Your task to perform on an android device: set the stopwatch Image 0: 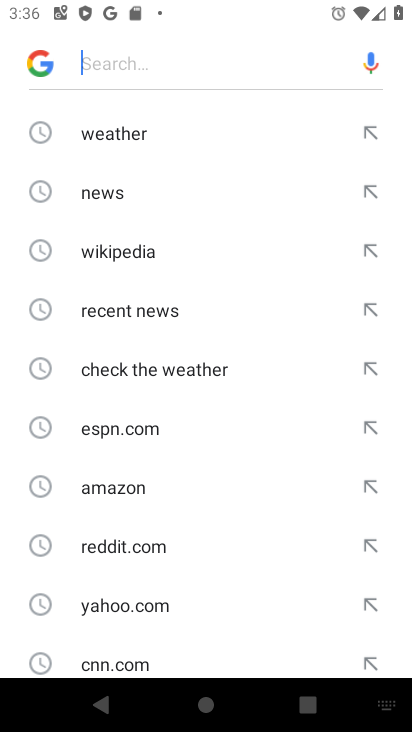
Step 0: press home button
Your task to perform on an android device: set the stopwatch Image 1: 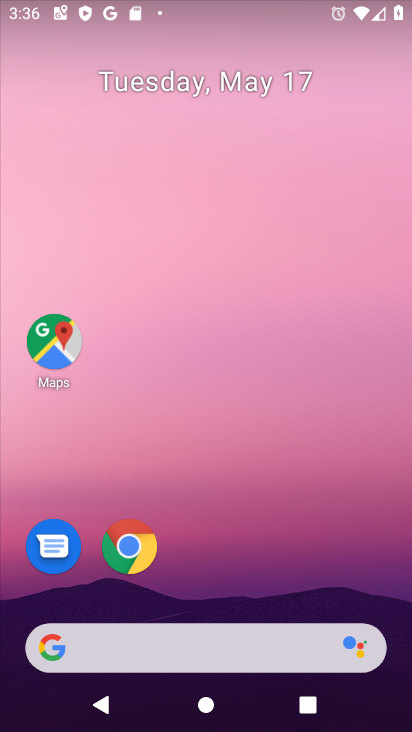
Step 1: drag from (395, 634) to (353, 140)
Your task to perform on an android device: set the stopwatch Image 2: 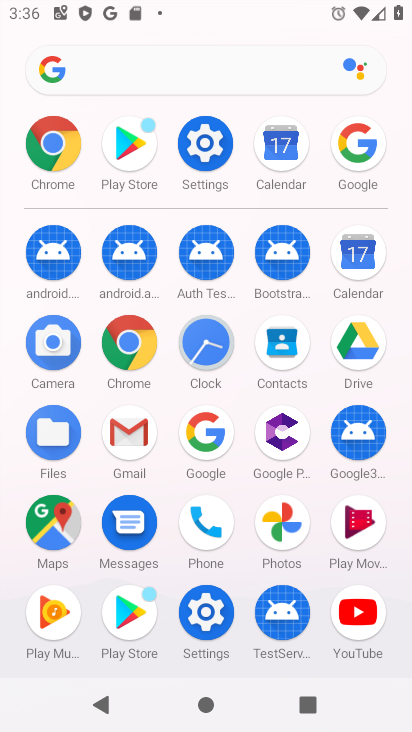
Step 2: click (199, 343)
Your task to perform on an android device: set the stopwatch Image 3: 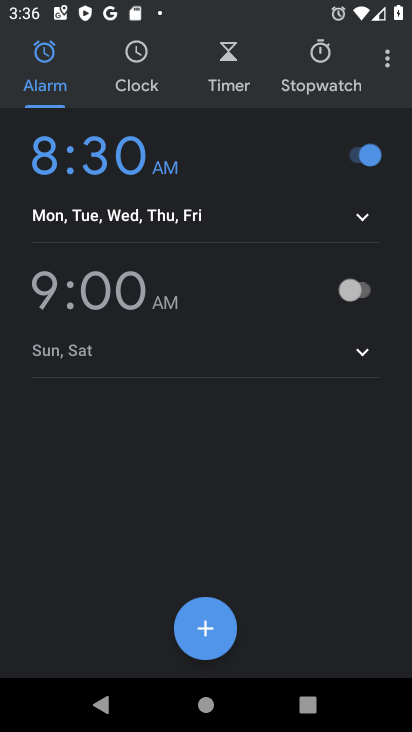
Step 3: click (327, 88)
Your task to perform on an android device: set the stopwatch Image 4: 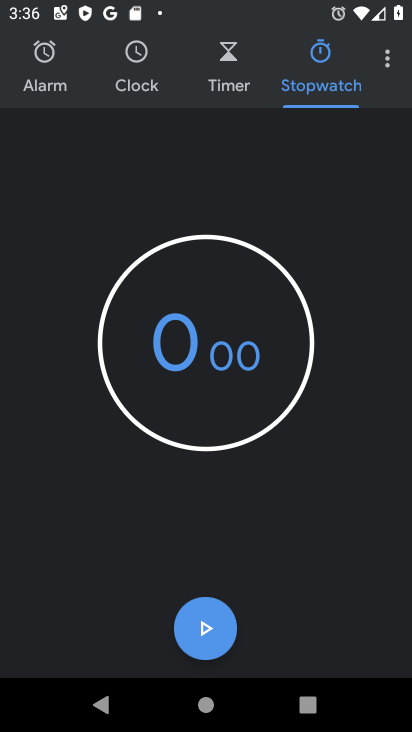
Step 4: click (213, 620)
Your task to perform on an android device: set the stopwatch Image 5: 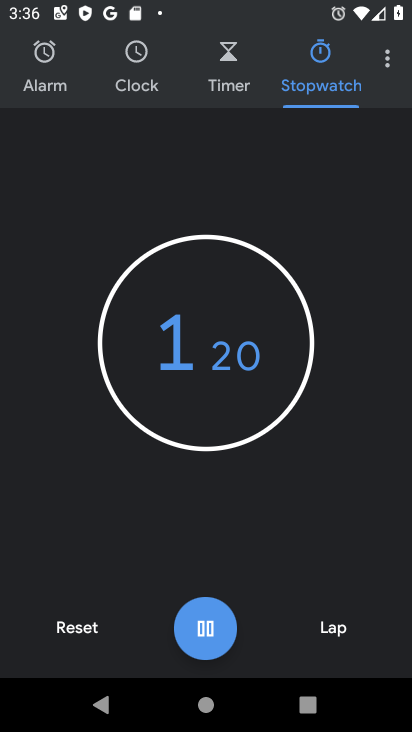
Step 5: task complete